Your task to perform on an android device: Open Google Chrome and open the bookmarks view Image 0: 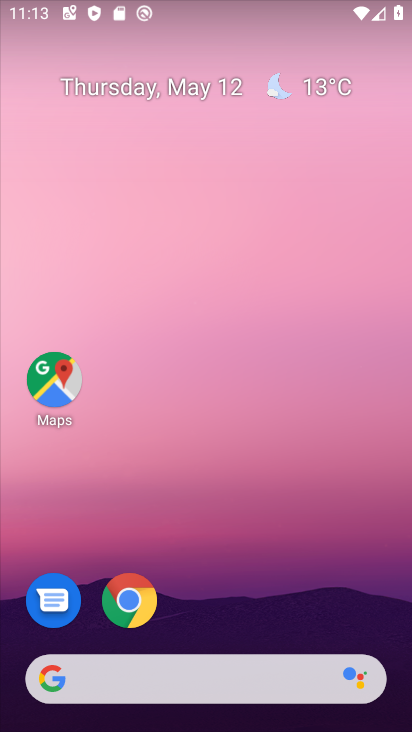
Step 0: click (126, 602)
Your task to perform on an android device: Open Google Chrome and open the bookmarks view Image 1: 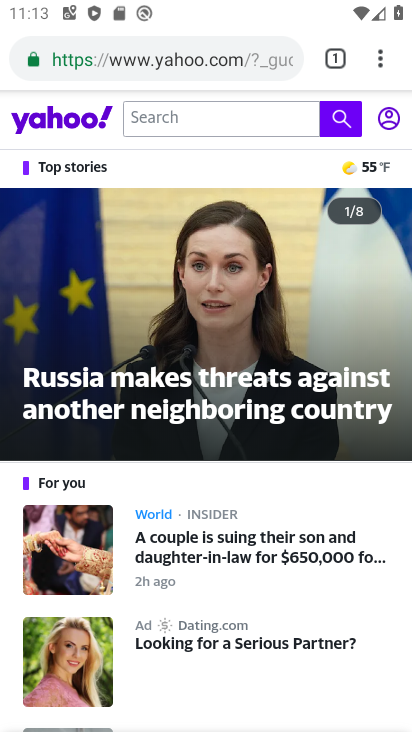
Step 1: click (382, 62)
Your task to perform on an android device: Open Google Chrome and open the bookmarks view Image 2: 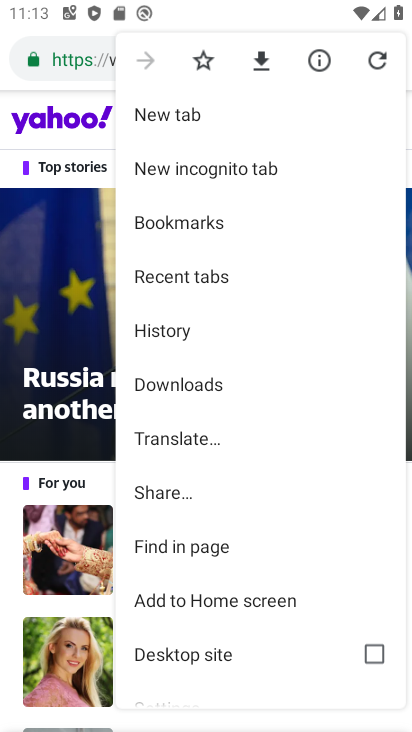
Step 2: click (171, 214)
Your task to perform on an android device: Open Google Chrome and open the bookmarks view Image 3: 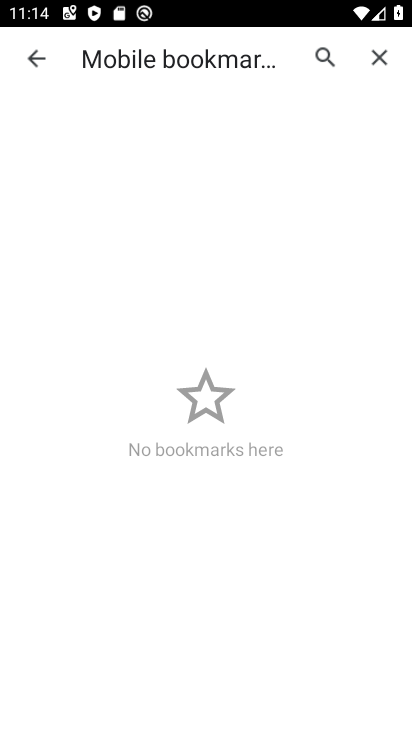
Step 3: task complete